Your task to perform on an android device: Open my contact list Image 0: 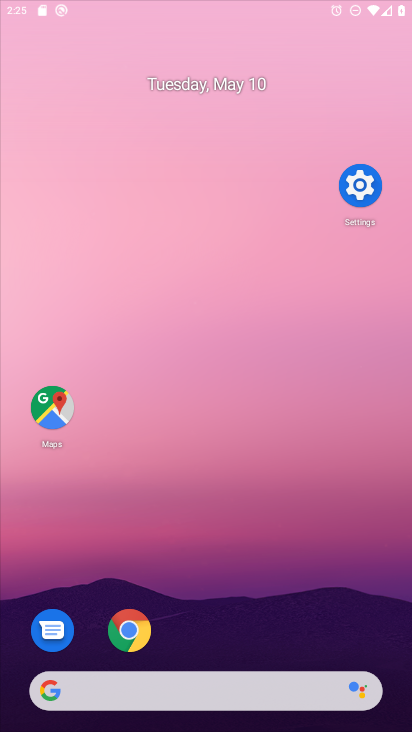
Step 0: drag from (252, 597) to (187, 3)
Your task to perform on an android device: Open my contact list Image 1: 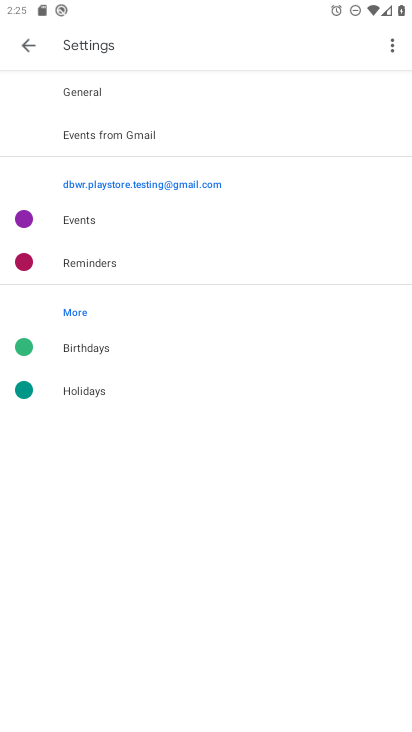
Step 1: click (26, 40)
Your task to perform on an android device: Open my contact list Image 2: 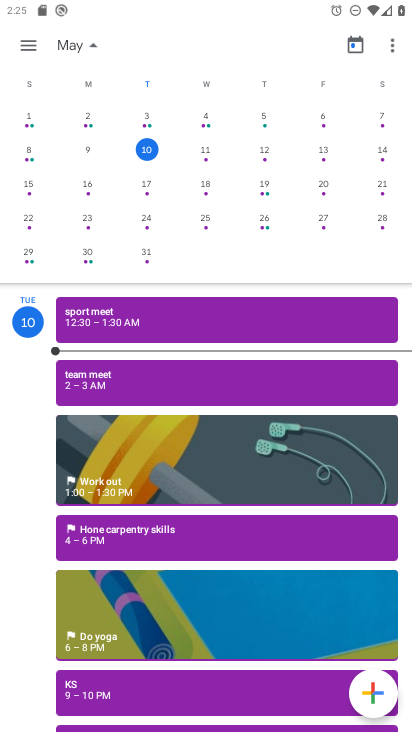
Step 2: press back button
Your task to perform on an android device: Open my contact list Image 3: 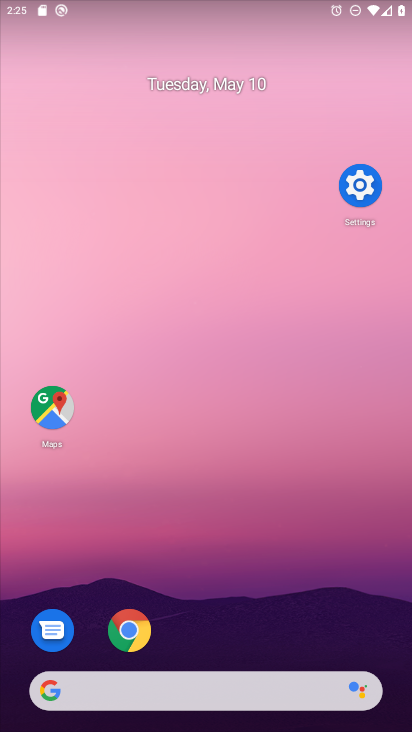
Step 3: drag from (289, 671) to (184, 158)
Your task to perform on an android device: Open my contact list Image 4: 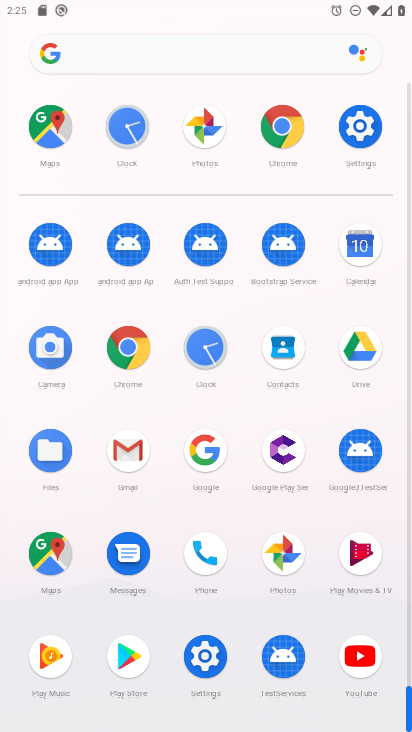
Step 4: click (282, 340)
Your task to perform on an android device: Open my contact list Image 5: 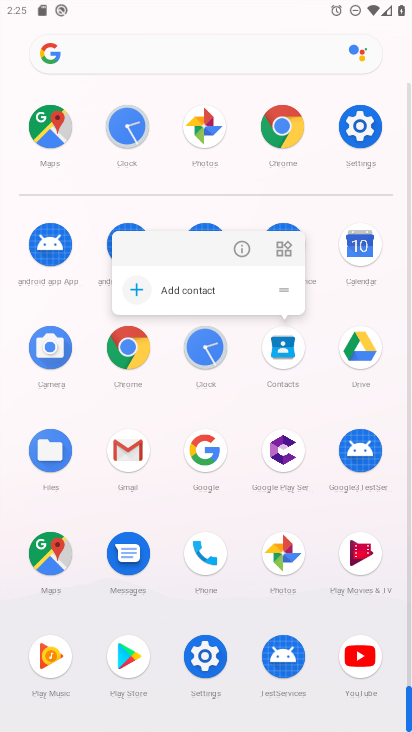
Step 5: click (282, 340)
Your task to perform on an android device: Open my contact list Image 6: 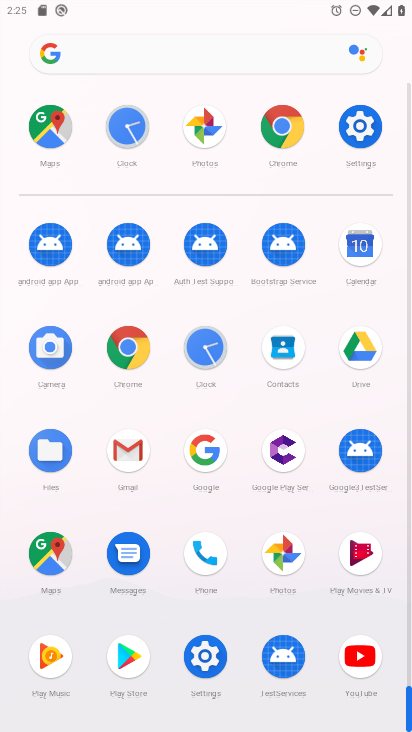
Step 6: click (282, 340)
Your task to perform on an android device: Open my contact list Image 7: 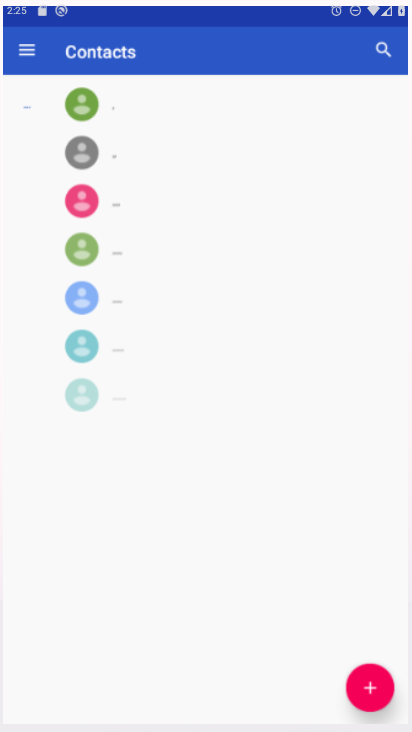
Step 7: click (282, 340)
Your task to perform on an android device: Open my contact list Image 8: 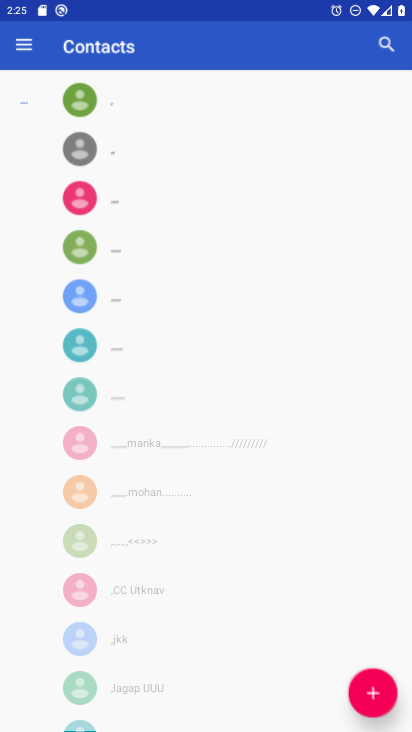
Step 8: click (281, 339)
Your task to perform on an android device: Open my contact list Image 9: 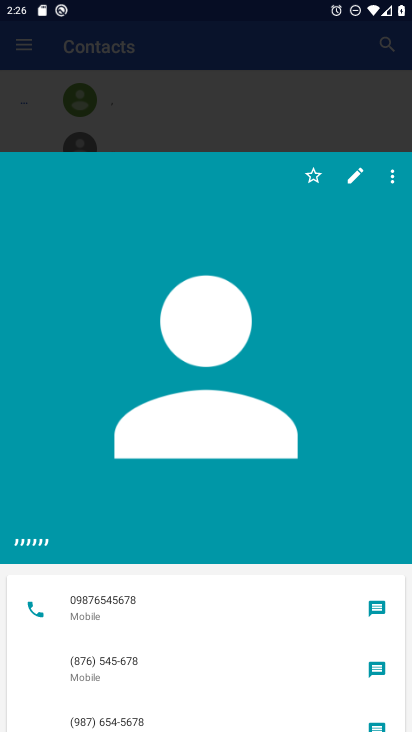
Step 9: task complete